Your task to perform on an android device: Go to wifi settings Image 0: 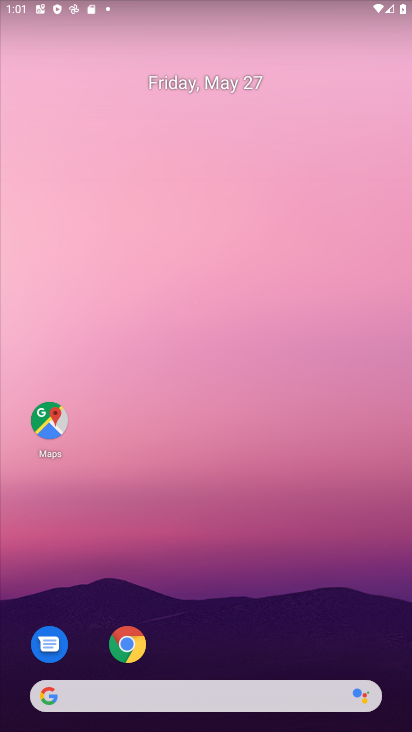
Step 0: drag from (352, 647) to (285, 16)
Your task to perform on an android device: Go to wifi settings Image 1: 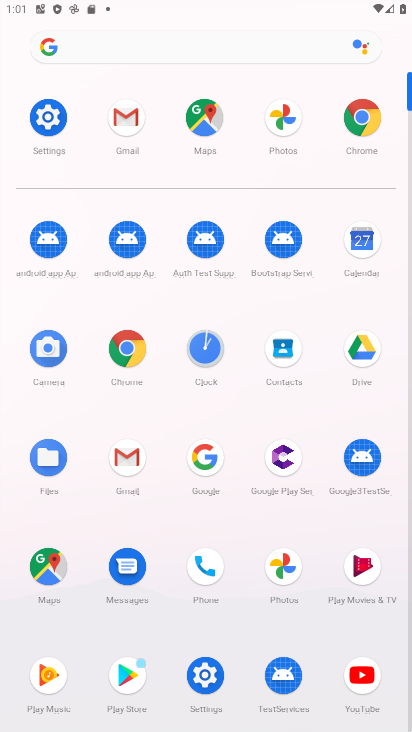
Step 1: click (35, 123)
Your task to perform on an android device: Go to wifi settings Image 2: 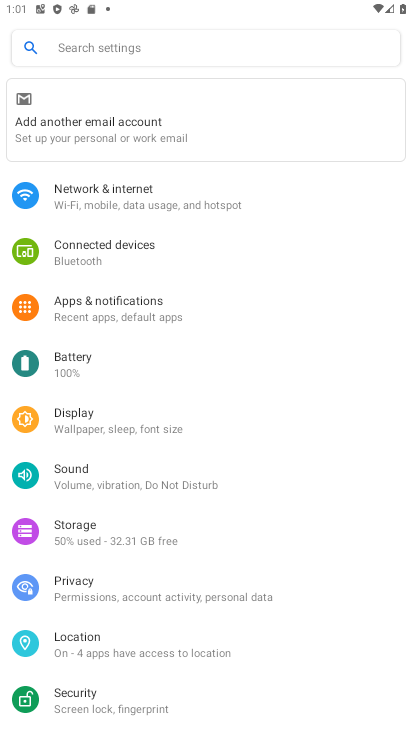
Step 2: click (119, 198)
Your task to perform on an android device: Go to wifi settings Image 3: 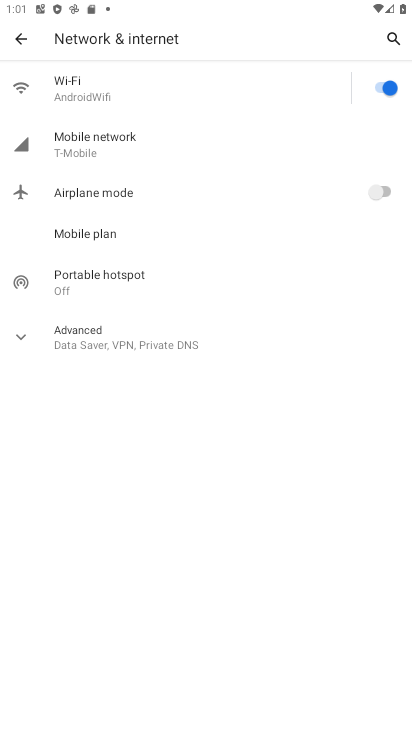
Step 3: click (163, 101)
Your task to perform on an android device: Go to wifi settings Image 4: 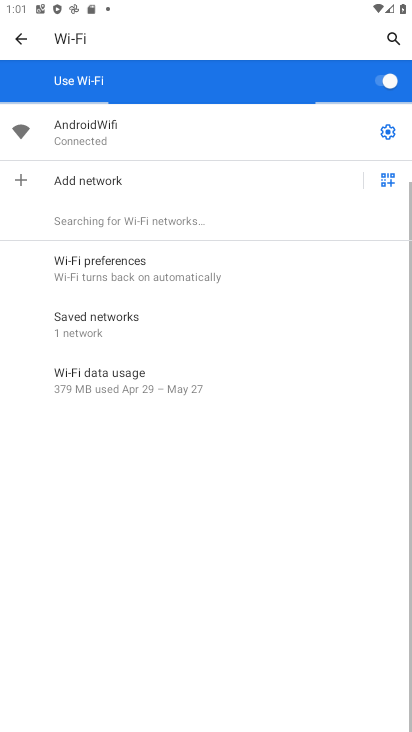
Step 4: task complete